Your task to perform on an android device: change your default location settings in chrome Image 0: 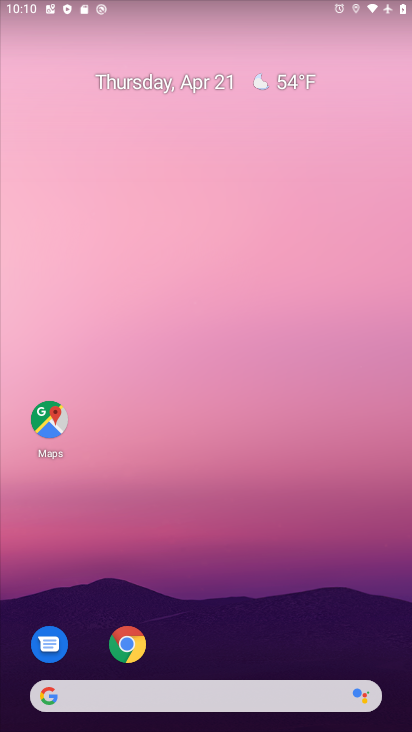
Step 0: click (135, 647)
Your task to perform on an android device: change your default location settings in chrome Image 1: 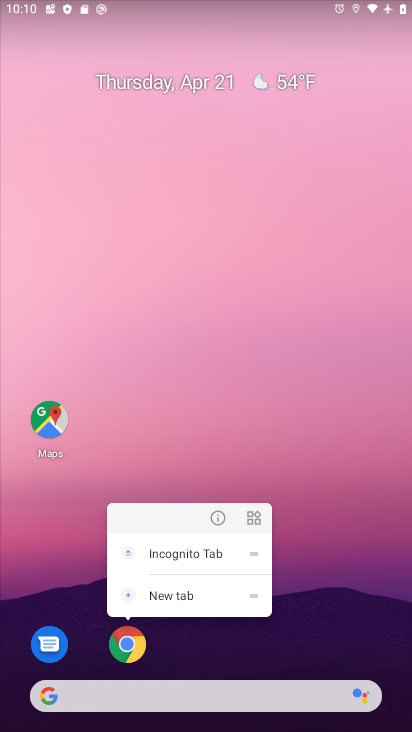
Step 1: click (135, 647)
Your task to perform on an android device: change your default location settings in chrome Image 2: 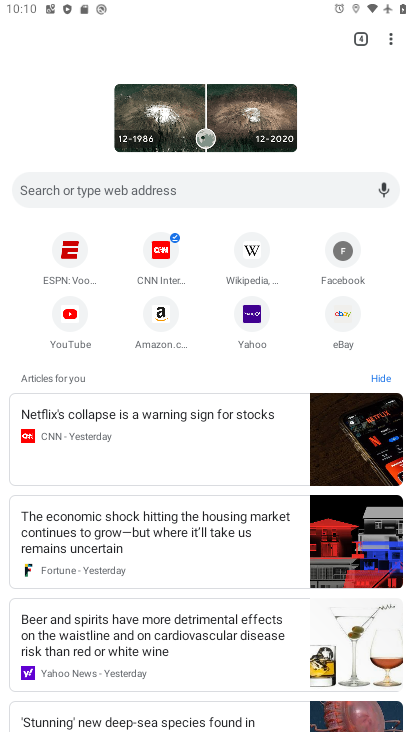
Step 2: drag from (393, 38) to (274, 380)
Your task to perform on an android device: change your default location settings in chrome Image 3: 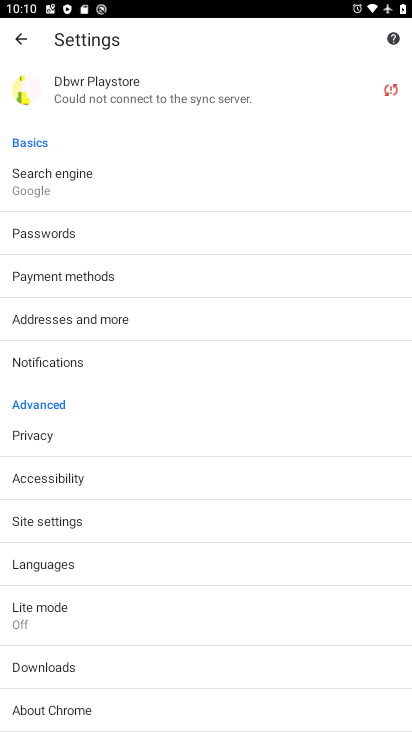
Step 3: click (54, 522)
Your task to perform on an android device: change your default location settings in chrome Image 4: 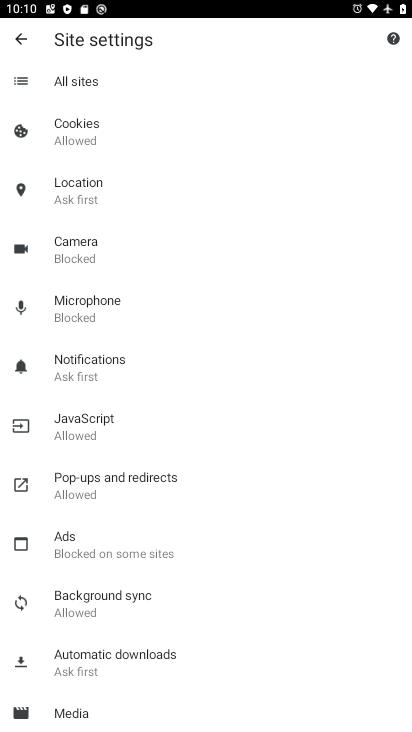
Step 4: click (83, 197)
Your task to perform on an android device: change your default location settings in chrome Image 5: 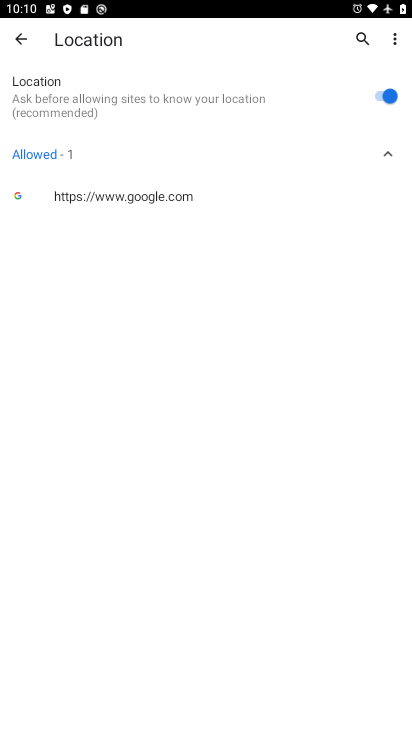
Step 5: click (387, 98)
Your task to perform on an android device: change your default location settings in chrome Image 6: 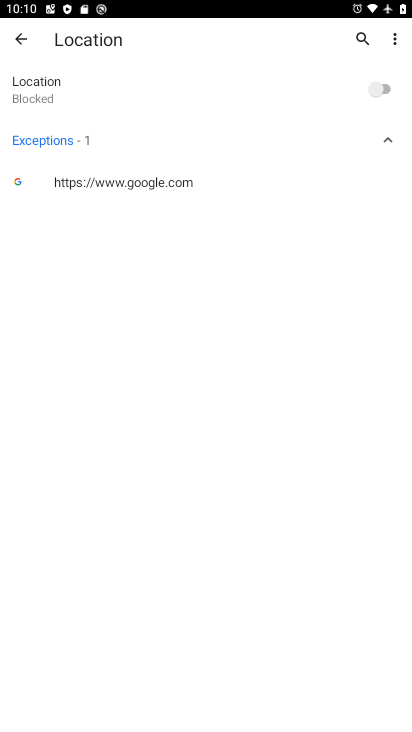
Step 6: task complete